Your task to perform on an android device: stop showing notifications on the lock screen Image 0: 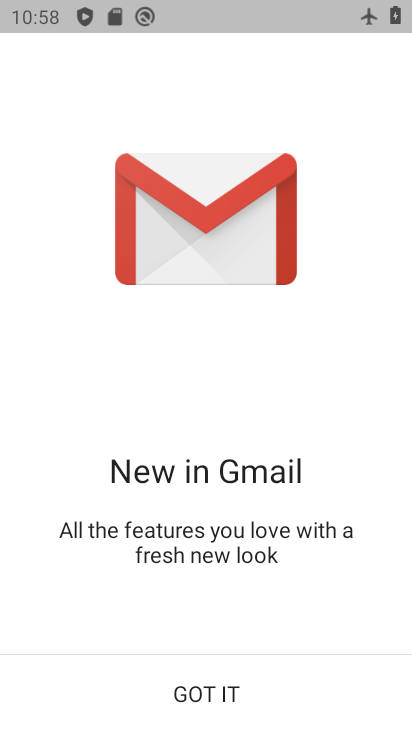
Step 0: click (221, 710)
Your task to perform on an android device: stop showing notifications on the lock screen Image 1: 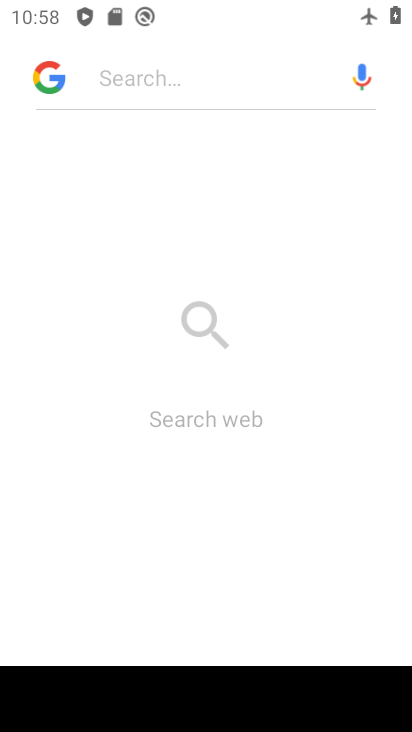
Step 1: press home button
Your task to perform on an android device: stop showing notifications on the lock screen Image 2: 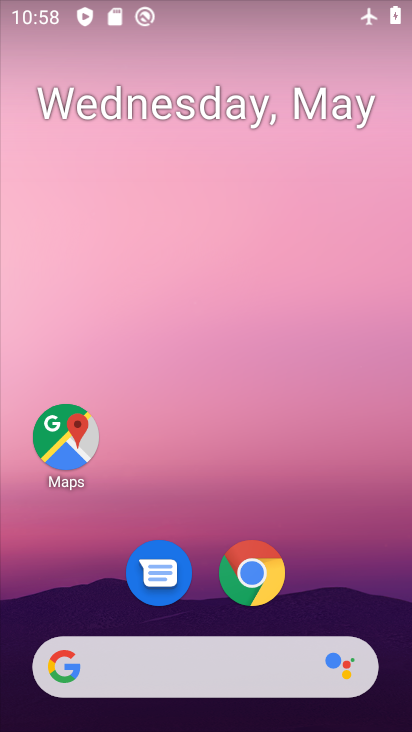
Step 2: drag from (365, 597) to (354, 175)
Your task to perform on an android device: stop showing notifications on the lock screen Image 3: 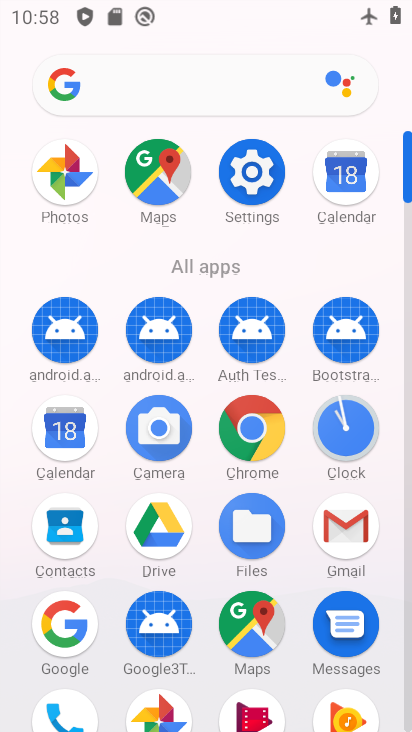
Step 3: drag from (294, 590) to (310, 310)
Your task to perform on an android device: stop showing notifications on the lock screen Image 4: 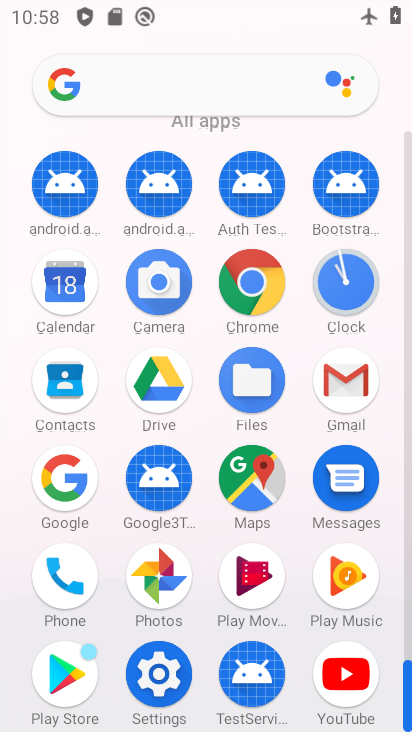
Step 4: click (158, 692)
Your task to perform on an android device: stop showing notifications on the lock screen Image 5: 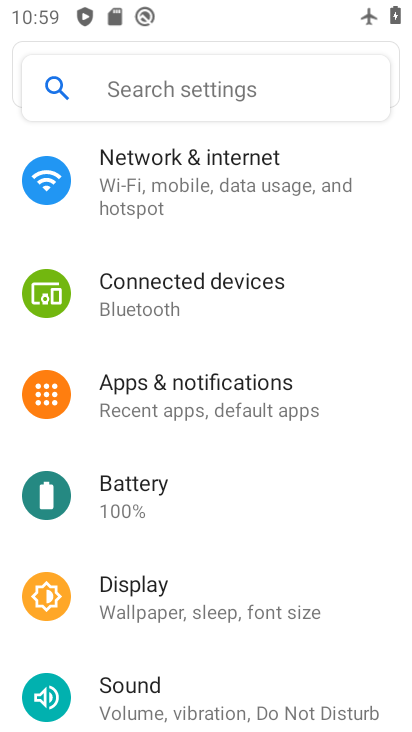
Step 5: drag from (359, 610) to (365, 460)
Your task to perform on an android device: stop showing notifications on the lock screen Image 6: 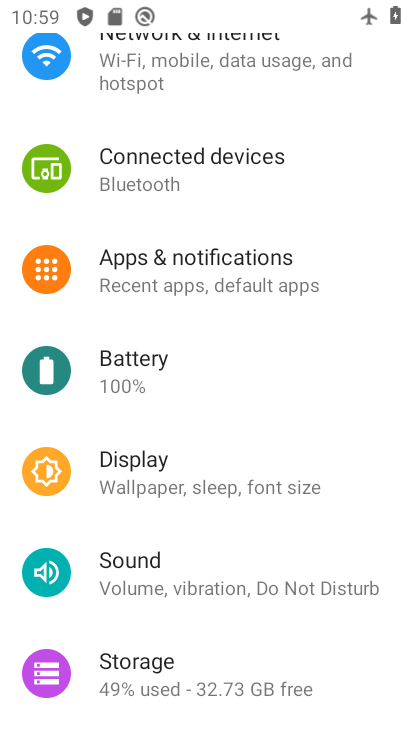
Step 6: drag from (365, 644) to (374, 478)
Your task to perform on an android device: stop showing notifications on the lock screen Image 7: 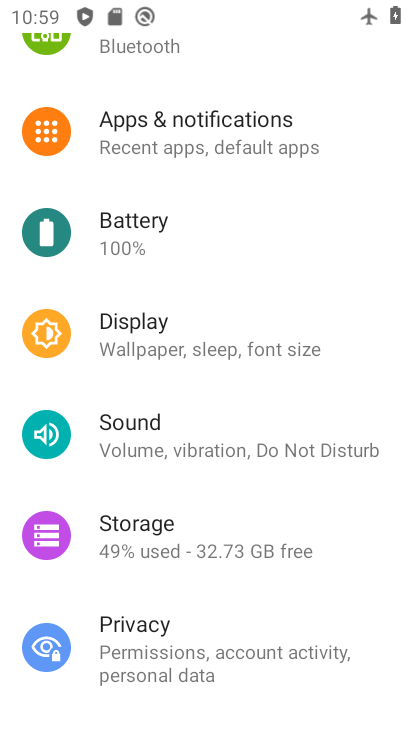
Step 7: drag from (372, 629) to (363, 508)
Your task to perform on an android device: stop showing notifications on the lock screen Image 8: 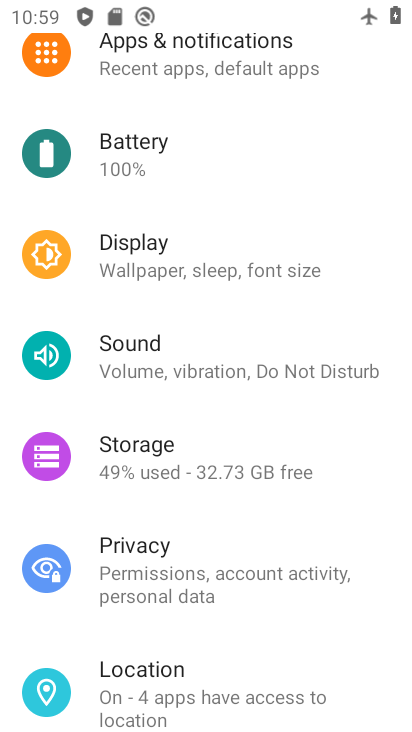
Step 8: drag from (358, 649) to (356, 568)
Your task to perform on an android device: stop showing notifications on the lock screen Image 9: 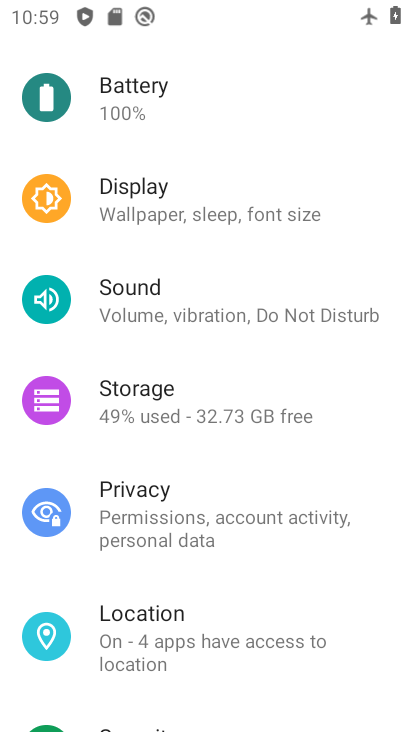
Step 9: drag from (362, 663) to (370, 558)
Your task to perform on an android device: stop showing notifications on the lock screen Image 10: 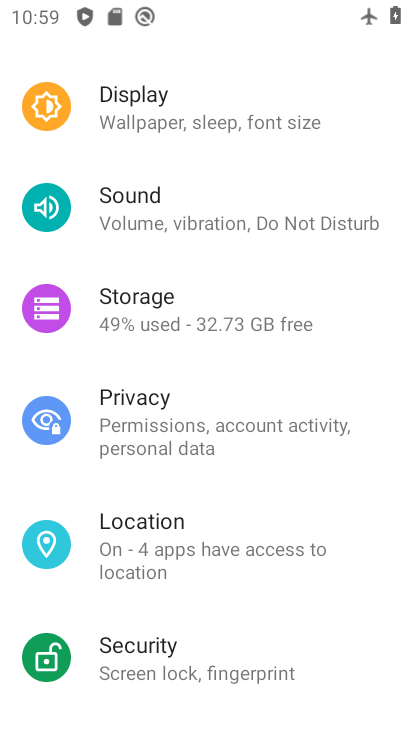
Step 10: drag from (376, 671) to (380, 578)
Your task to perform on an android device: stop showing notifications on the lock screen Image 11: 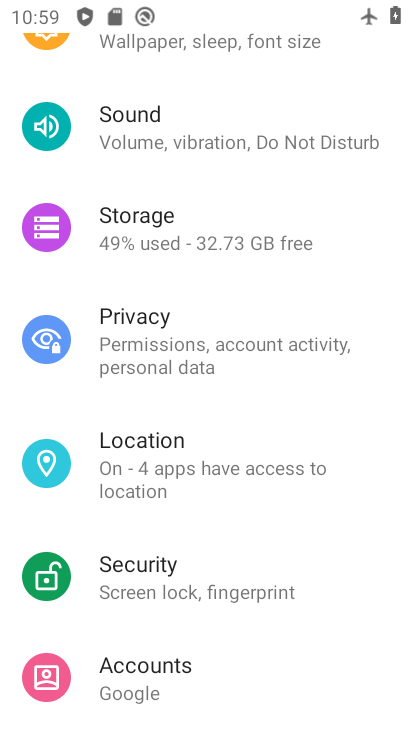
Step 11: drag from (377, 698) to (369, 597)
Your task to perform on an android device: stop showing notifications on the lock screen Image 12: 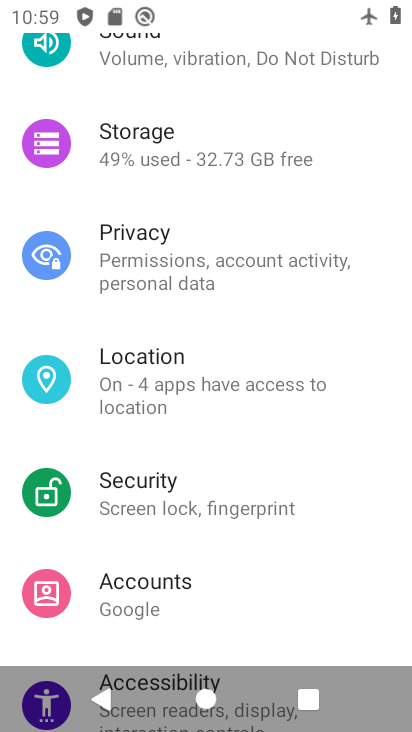
Step 12: drag from (366, 603) to (373, 492)
Your task to perform on an android device: stop showing notifications on the lock screen Image 13: 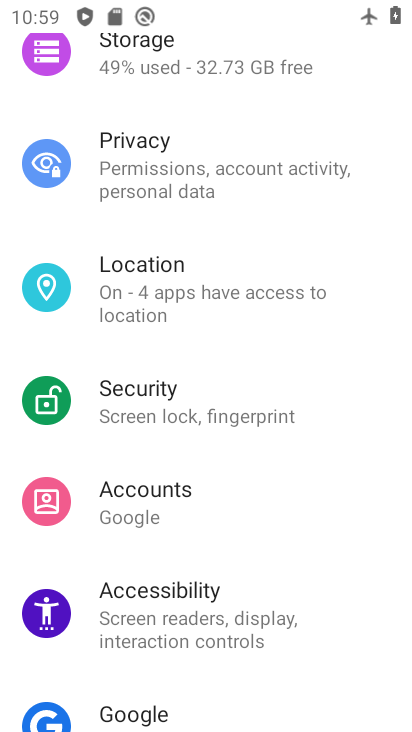
Step 13: drag from (340, 402) to (347, 524)
Your task to perform on an android device: stop showing notifications on the lock screen Image 14: 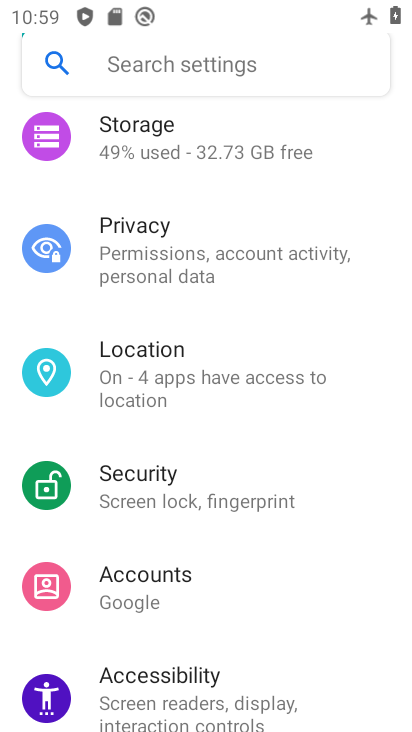
Step 14: drag from (353, 334) to (341, 495)
Your task to perform on an android device: stop showing notifications on the lock screen Image 15: 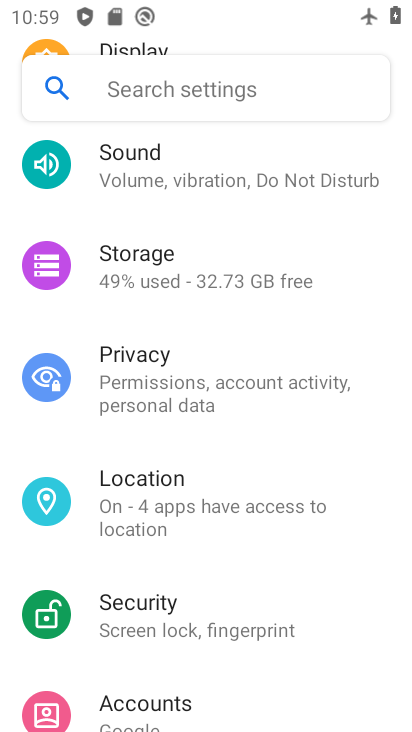
Step 15: drag from (356, 325) to (364, 464)
Your task to perform on an android device: stop showing notifications on the lock screen Image 16: 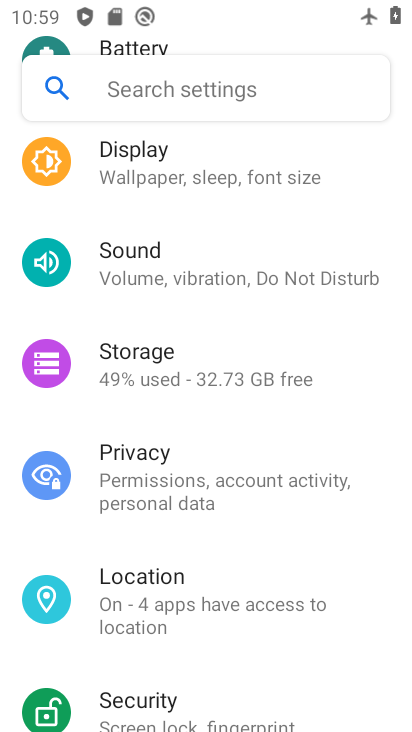
Step 16: drag from (373, 325) to (364, 433)
Your task to perform on an android device: stop showing notifications on the lock screen Image 17: 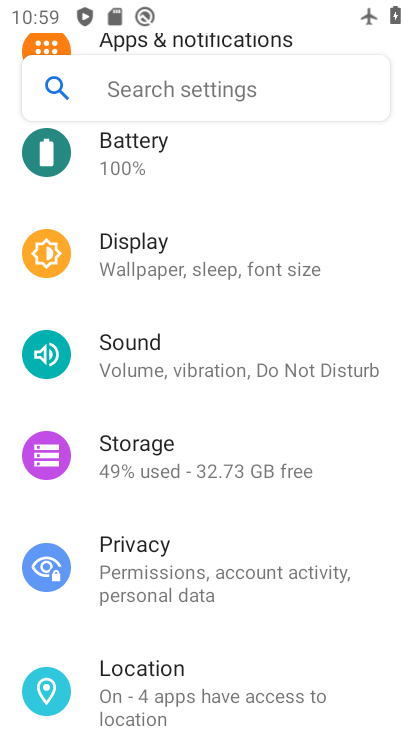
Step 17: drag from (369, 268) to (373, 418)
Your task to perform on an android device: stop showing notifications on the lock screen Image 18: 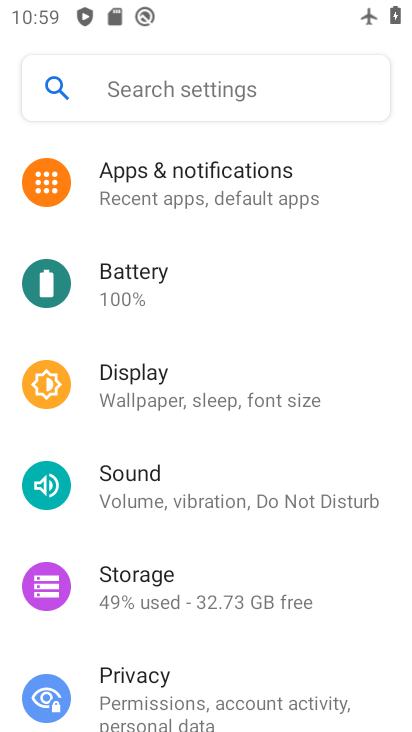
Step 18: drag from (351, 284) to (358, 367)
Your task to perform on an android device: stop showing notifications on the lock screen Image 19: 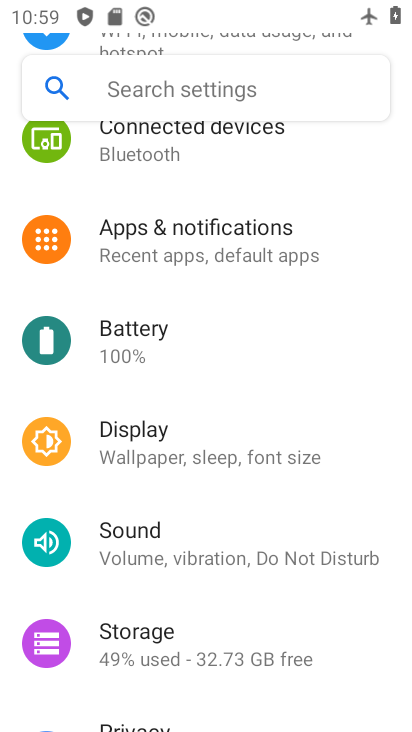
Step 19: drag from (354, 229) to (336, 354)
Your task to perform on an android device: stop showing notifications on the lock screen Image 20: 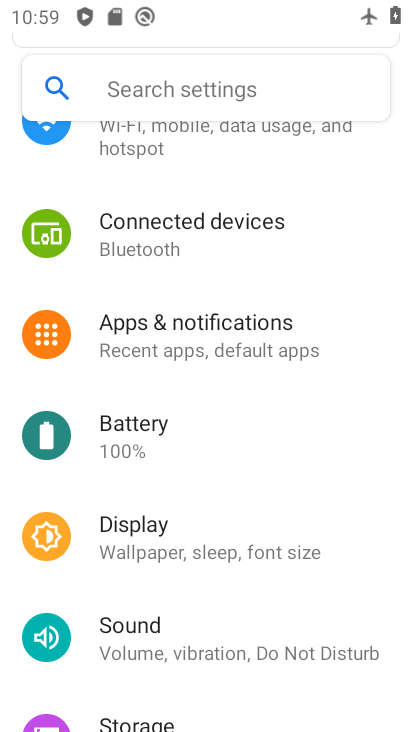
Step 20: click (213, 338)
Your task to perform on an android device: stop showing notifications on the lock screen Image 21: 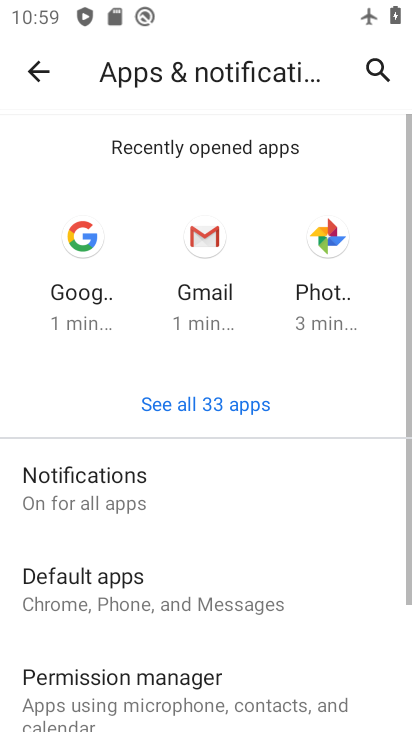
Step 21: drag from (278, 504) to (283, 353)
Your task to perform on an android device: stop showing notifications on the lock screen Image 22: 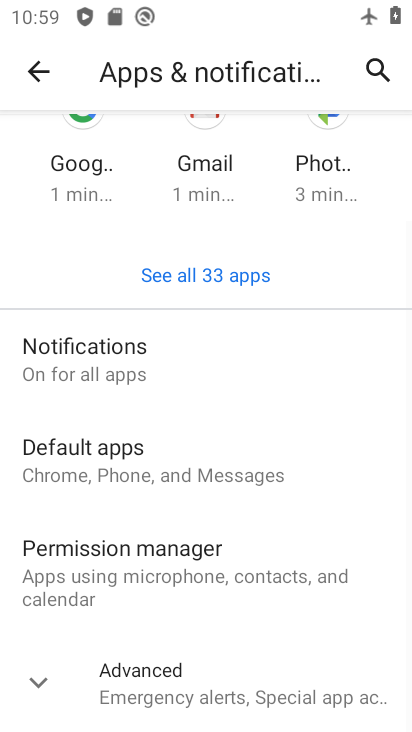
Step 22: drag from (294, 522) to (288, 387)
Your task to perform on an android device: stop showing notifications on the lock screen Image 23: 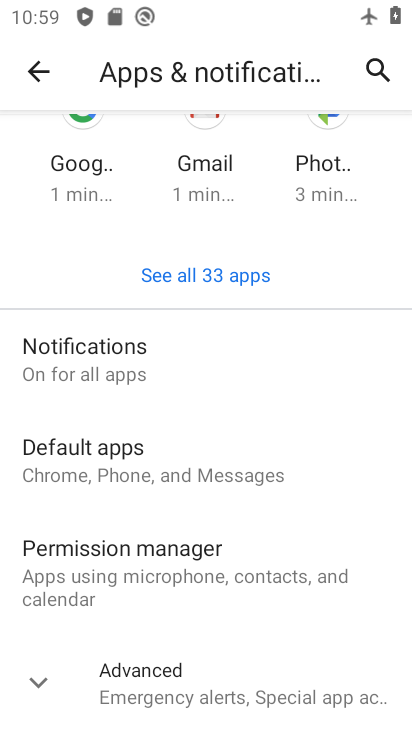
Step 23: click (124, 358)
Your task to perform on an android device: stop showing notifications on the lock screen Image 24: 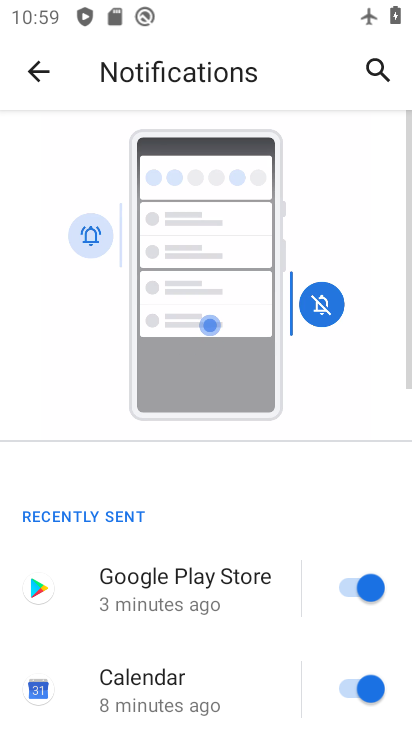
Step 24: drag from (292, 570) to (281, 418)
Your task to perform on an android device: stop showing notifications on the lock screen Image 25: 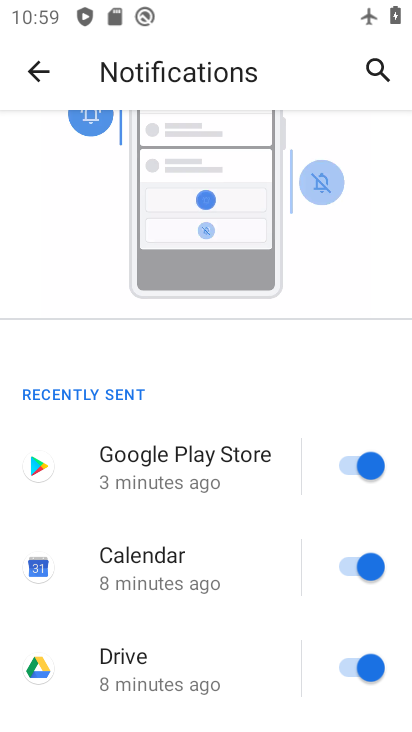
Step 25: drag from (260, 594) to (243, 429)
Your task to perform on an android device: stop showing notifications on the lock screen Image 26: 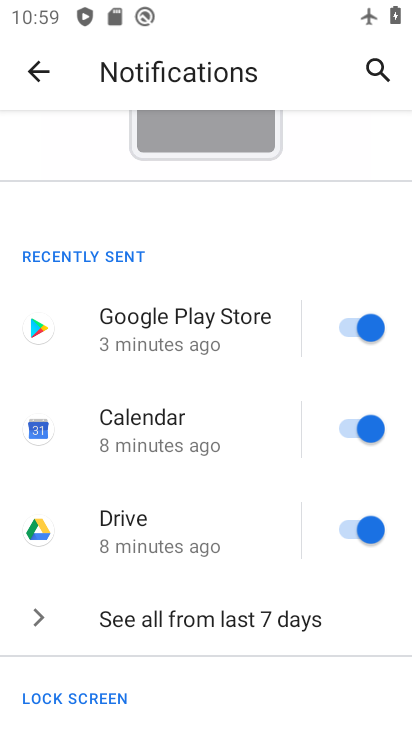
Step 26: drag from (253, 645) to (259, 472)
Your task to perform on an android device: stop showing notifications on the lock screen Image 27: 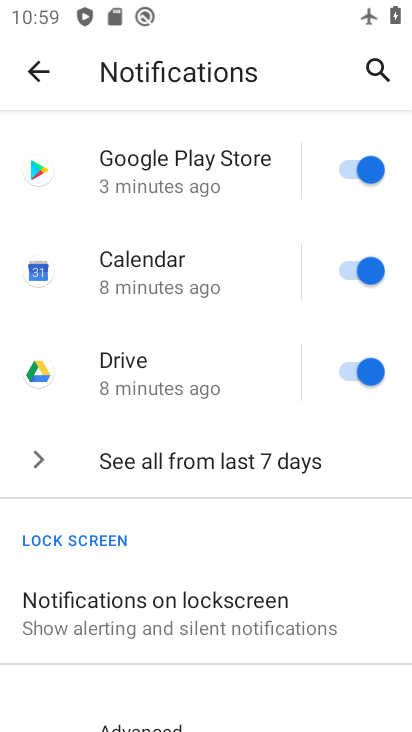
Step 27: drag from (292, 587) to (270, 385)
Your task to perform on an android device: stop showing notifications on the lock screen Image 28: 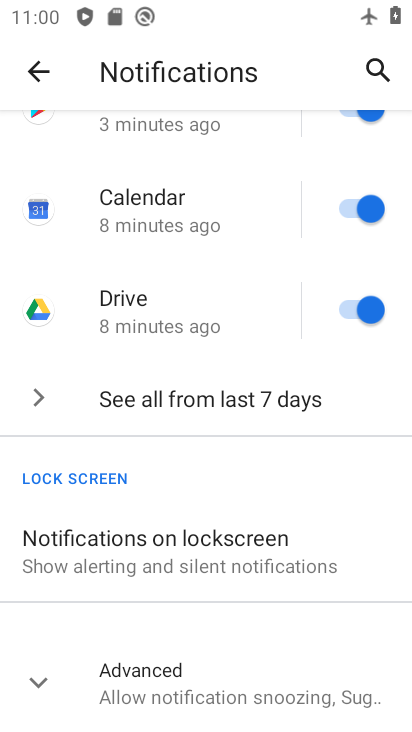
Step 28: click (237, 553)
Your task to perform on an android device: stop showing notifications on the lock screen Image 29: 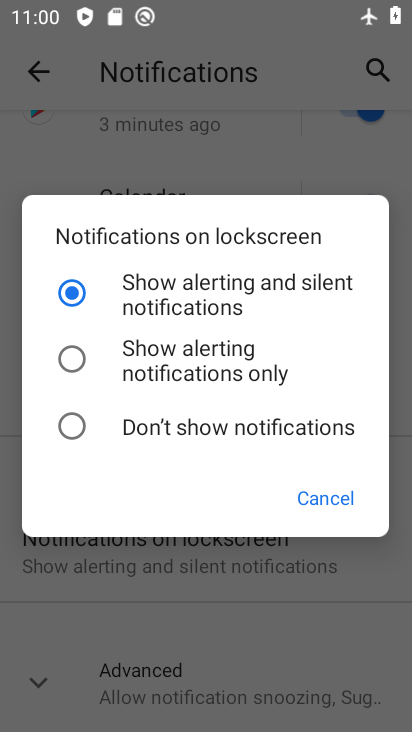
Step 29: click (291, 435)
Your task to perform on an android device: stop showing notifications on the lock screen Image 30: 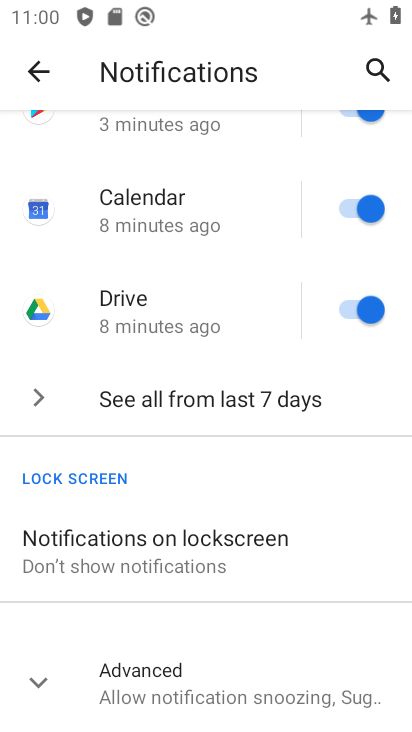
Step 30: task complete